Your task to perform on an android device: turn off notifications settings in the gmail app Image 0: 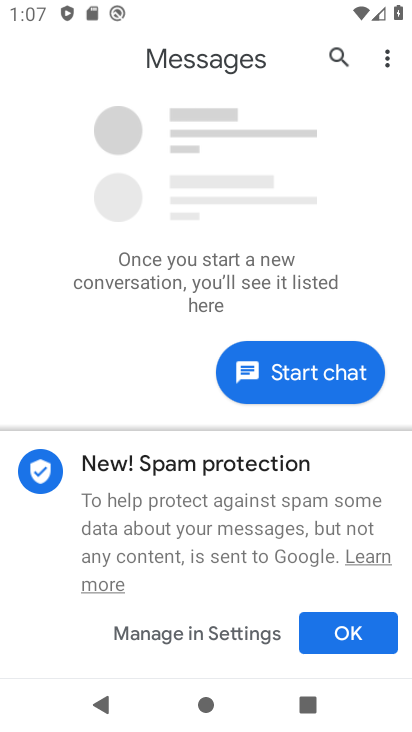
Step 0: press home button
Your task to perform on an android device: turn off notifications settings in the gmail app Image 1: 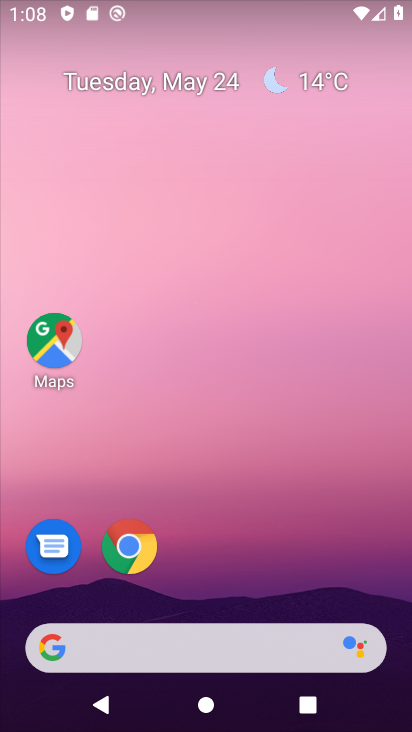
Step 1: drag from (231, 552) to (263, 26)
Your task to perform on an android device: turn off notifications settings in the gmail app Image 2: 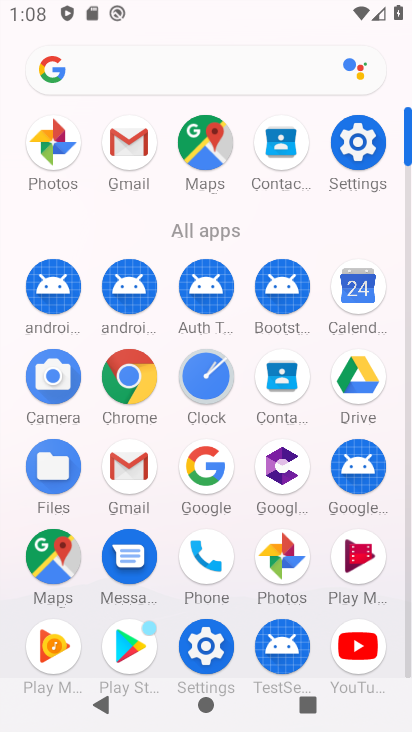
Step 2: click (130, 461)
Your task to perform on an android device: turn off notifications settings in the gmail app Image 3: 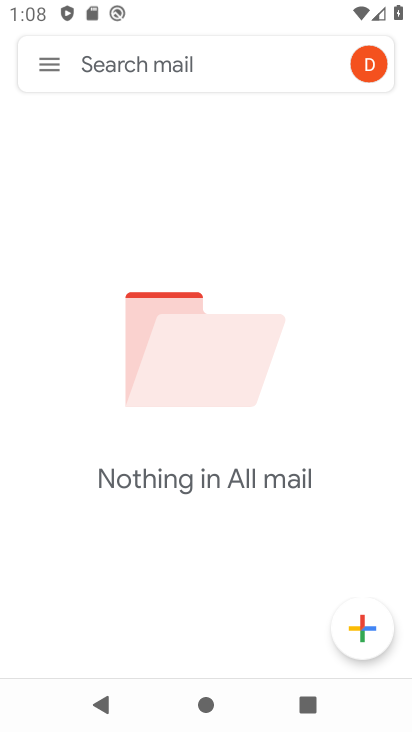
Step 3: click (49, 66)
Your task to perform on an android device: turn off notifications settings in the gmail app Image 4: 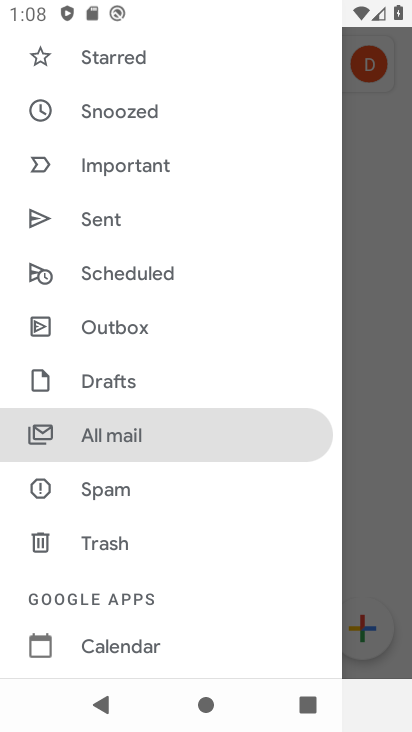
Step 4: click (173, 234)
Your task to perform on an android device: turn off notifications settings in the gmail app Image 5: 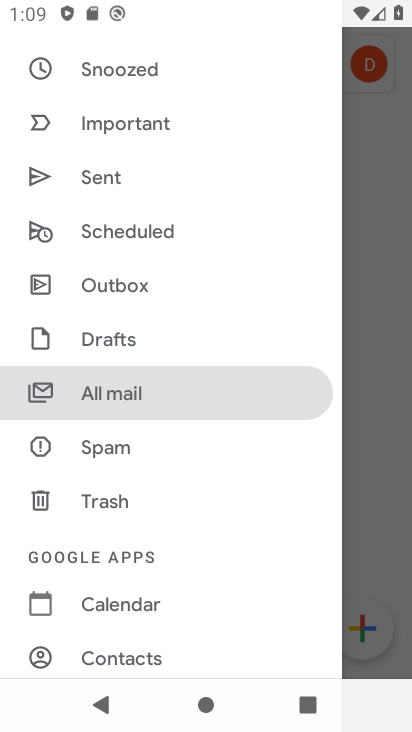
Step 5: drag from (144, 611) to (169, 260)
Your task to perform on an android device: turn off notifications settings in the gmail app Image 6: 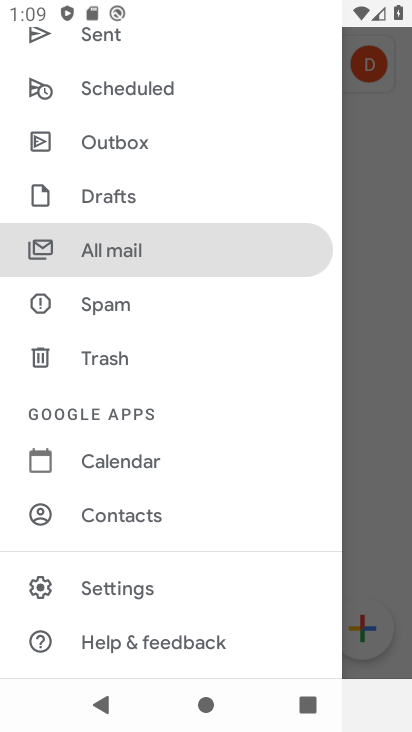
Step 6: click (83, 594)
Your task to perform on an android device: turn off notifications settings in the gmail app Image 7: 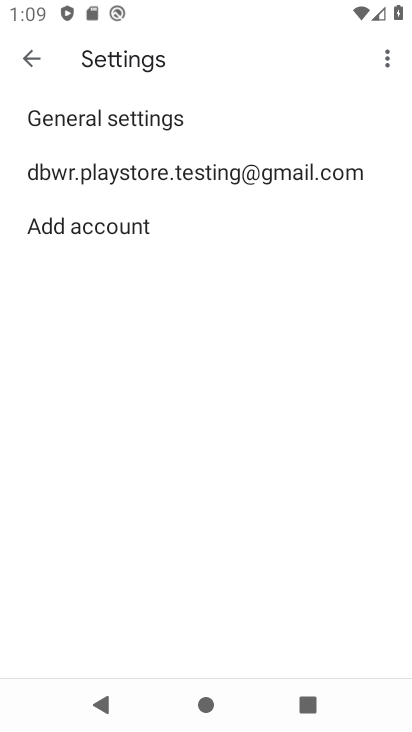
Step 7: click (171, 176)
Your task to perform on an android device: turn off notifications settings in the gmail app Image 8: 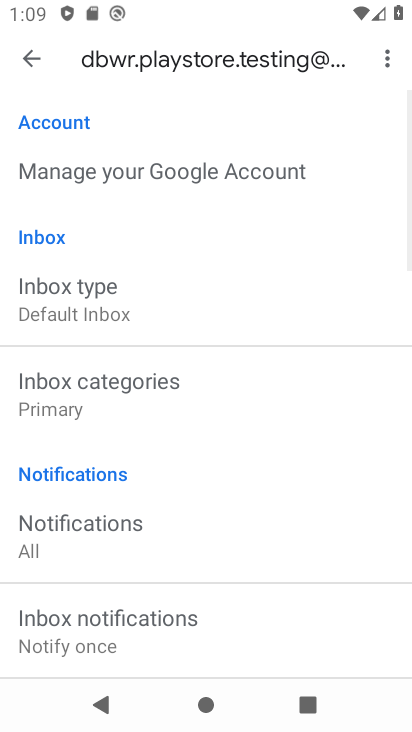
Step 8: drag from (213, 512) to (191, 206)
Your task to perform on an android device: turn off notifications settings in the gmail app Image 9: 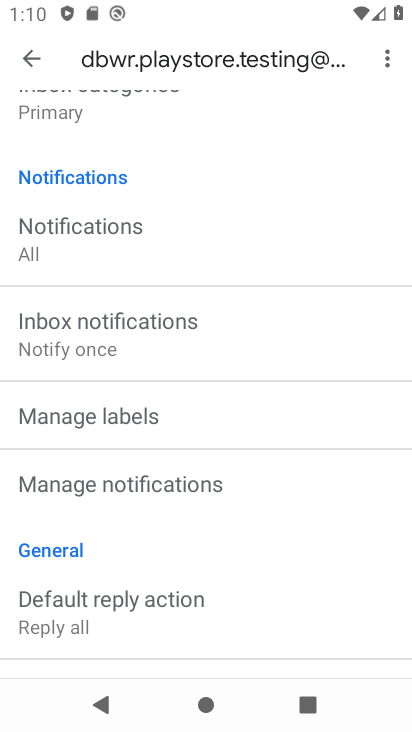
Step 9: click (85, 253)
Your task to perform on an android device: turn off notifications settings in the gmail app Image 10: 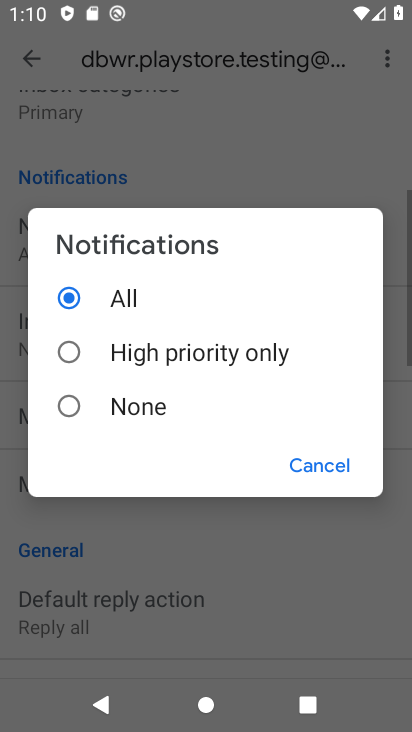
Step 10: click (109, 410)
Your task to perform on an android device: turn off notifications settings in the gmail app Image 11: 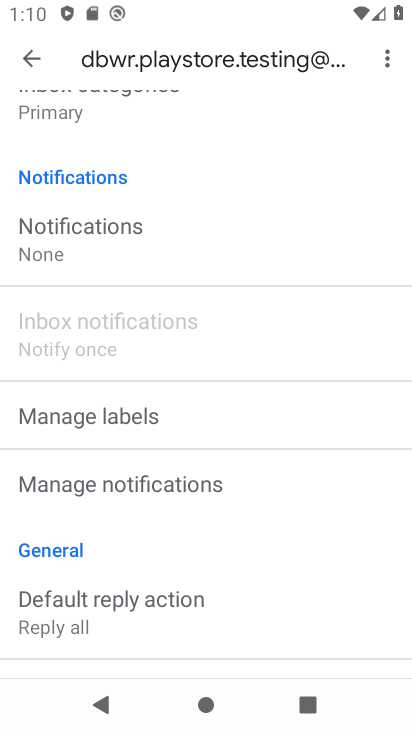
Step 11: task complete